Your task to perform on an android device: turn on airplane mode Image 0: 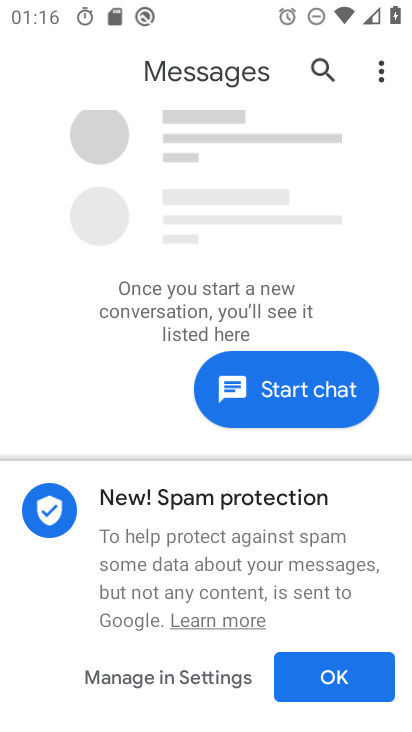
Step 0: press home button
Your task to perform on an android device: turn on airplane mode Image 1: 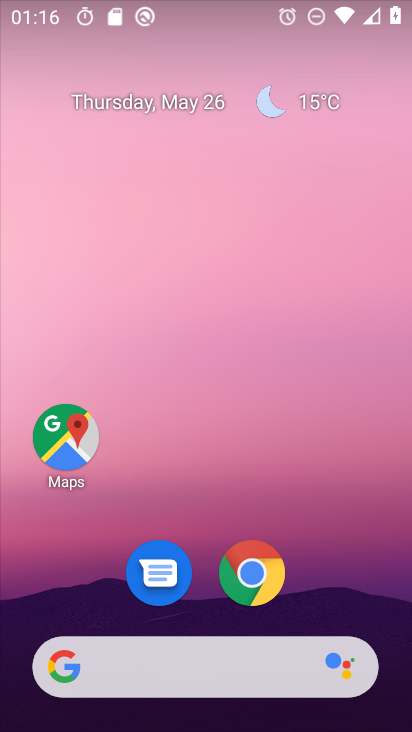
Step 1: drag from (366, 625) to (397, 2)
Your task to perform on an android device: turn on airplane mode Image 2: 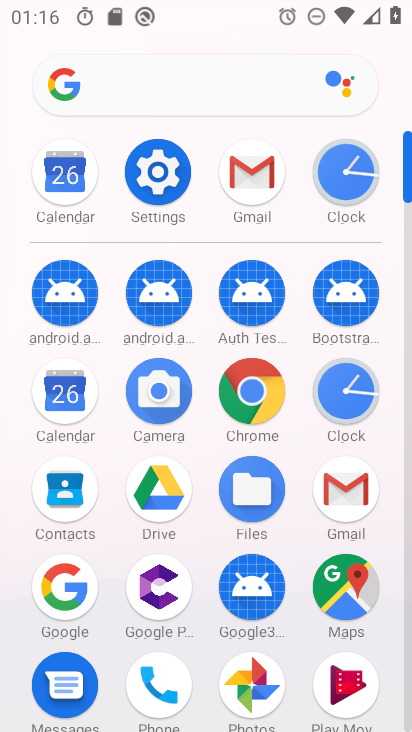
Step 2: click (157, 169)
Your task to perform on an android device: turn on airplane mode Image 3: 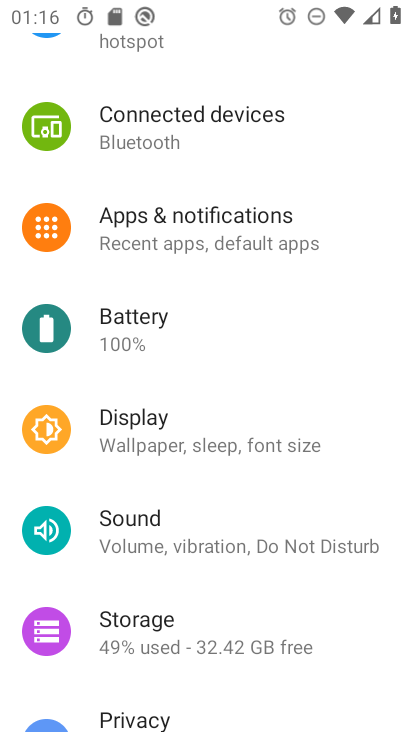
Step 3: drag from (397, 259) to (352, 620)
Your task to perform on an android device: turn on airplane mode Image 4: 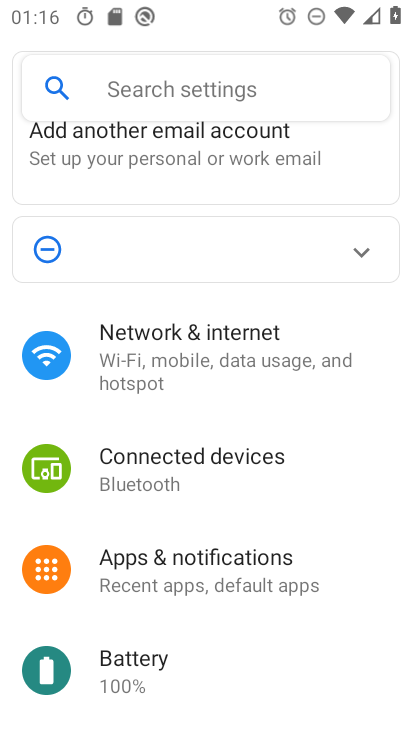
Step 4: click (161, 358)
Your task to perform on an android device: turn on airplane mode Image 5: 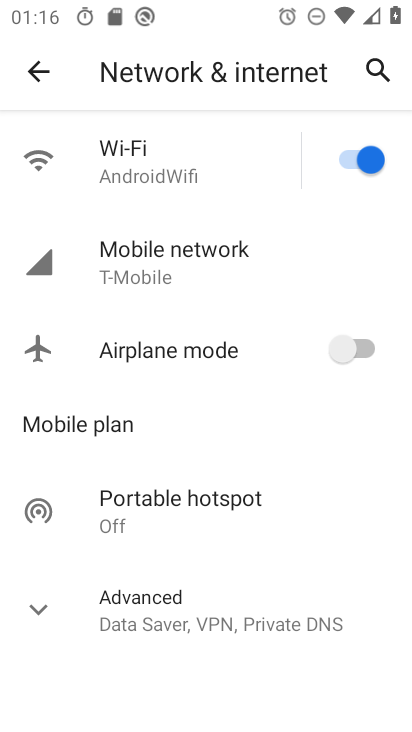
Step 5: click (342, 360)
Your task to perform on an android device: turn on airplane mode Image 6: 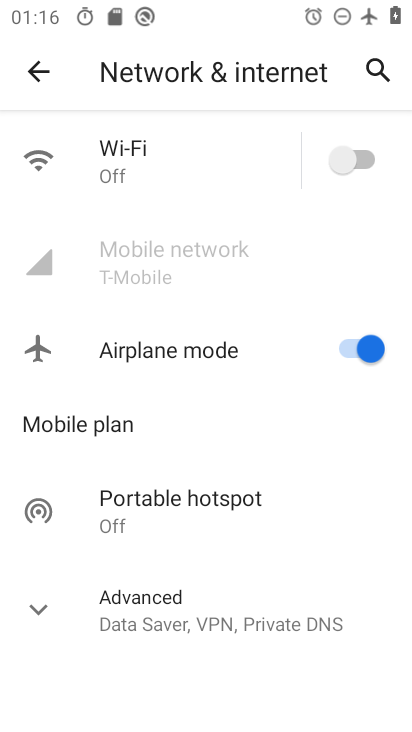
Step 6: task complete